Your task to perform on an android device: Open Yahoo.com Image 0: 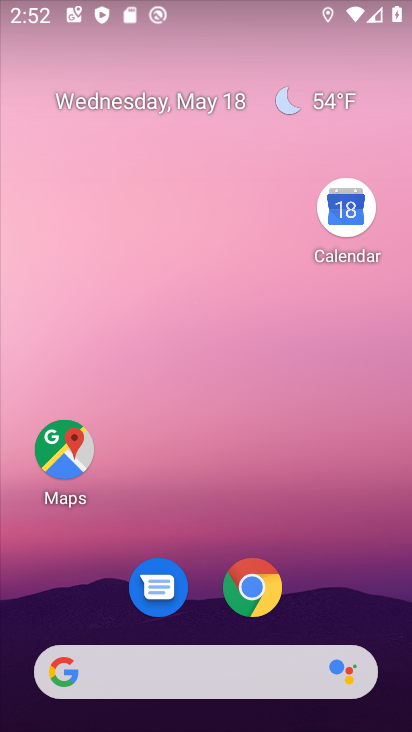
Step 0: drag from (234, 292) to (246, 191)
Your task to perform on an android device: Open Yahoo.com Image 1: 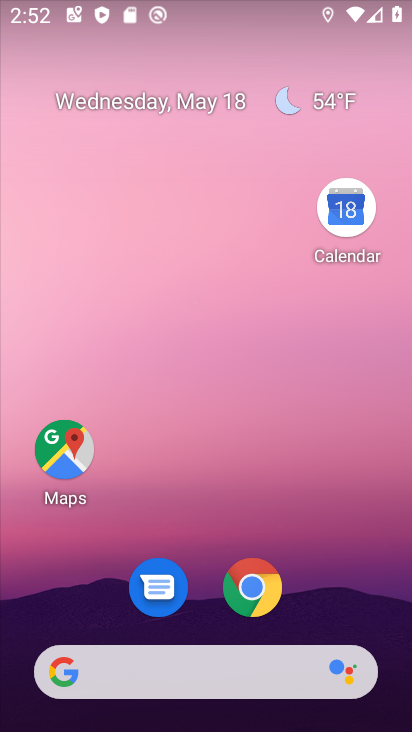
Step 1: drag from (203, 642) to (209, 284)
Your task to perform on an android device: Open Yahoo.com Image 2: 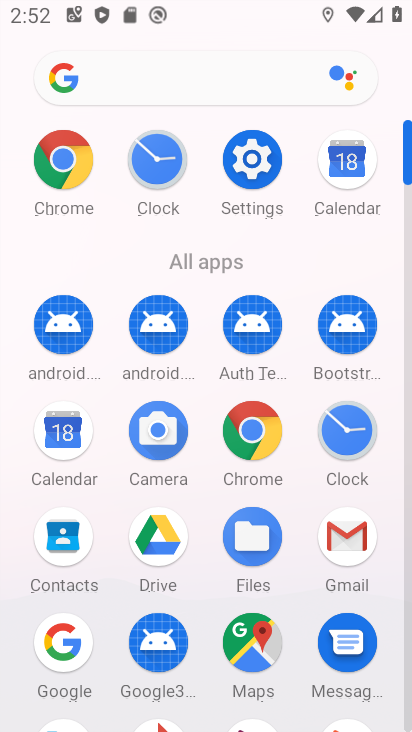
Step 2: click (207, 71)
Your task to perform on an android device: Open Yahoo.com Image 3: 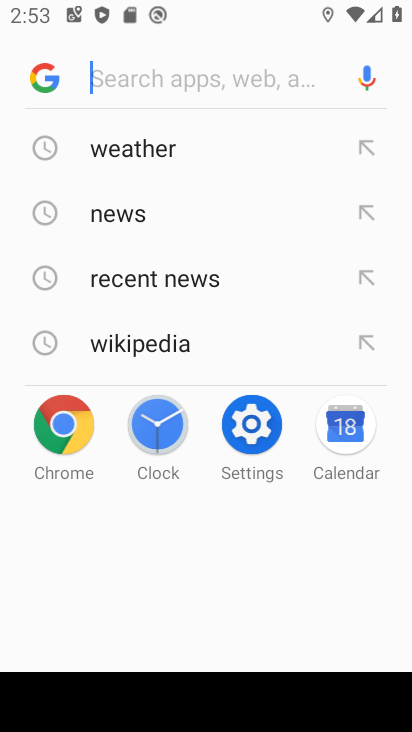
Step 3: type "yahoo"
Your task to perform on an android device: Open Yahoo.com Image 4: 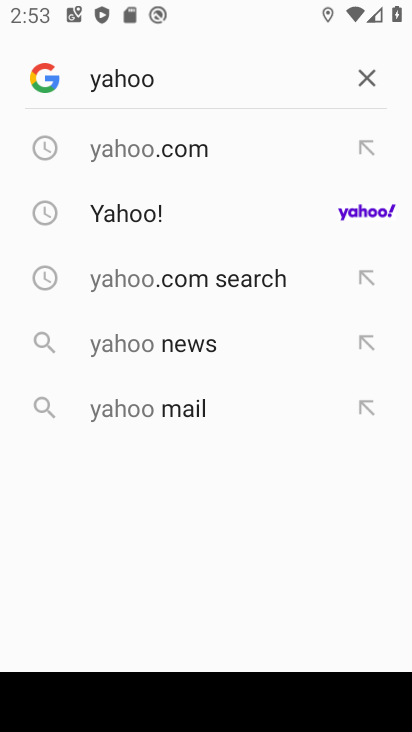
Step 4: click (144, 150)
Your task to perform on an android device: Open Yahoo.com Image 5: 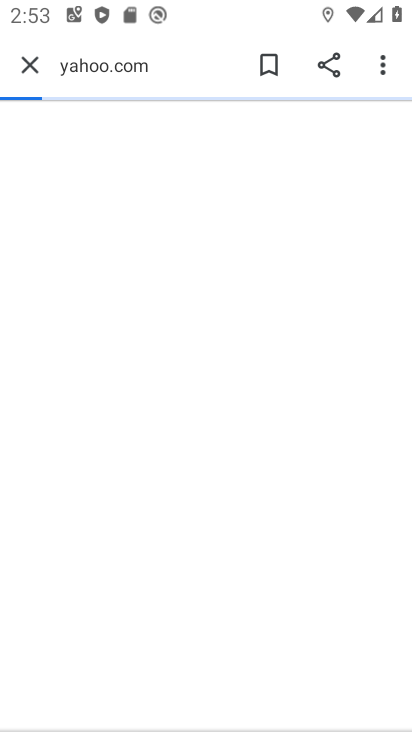
Step 5: task complete